Your task to perform on an android device: turn notification dots off Image 0: 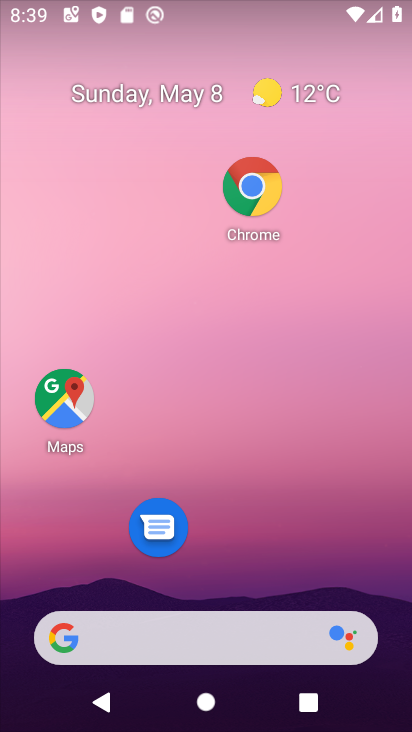
Step 0: drag from (307, 551) to (327, 332)
Your task to perform on an android device: turn notification dots off Image 1: 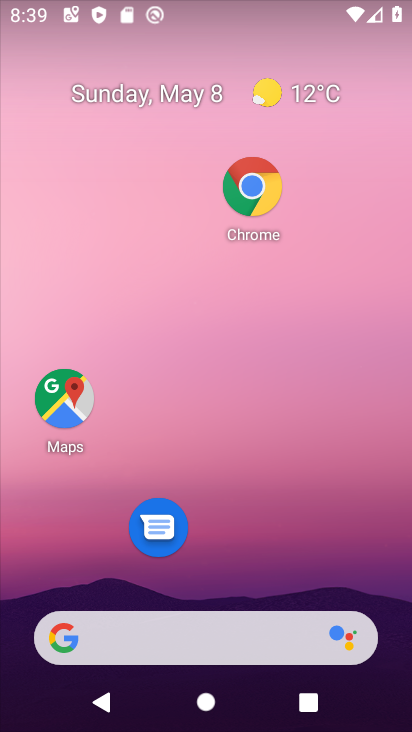
Step 1: drag from (281, 564) to (309, 303)
Your task to perform on an android device: turn notification dots off Image 2: 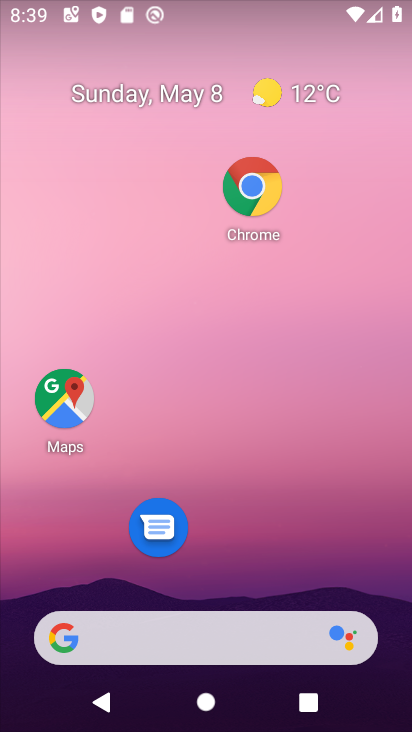
Step 2: drag from (235, 586) to (306, 174)
Your task to perform on an android device: turn notification dots off Image 3: 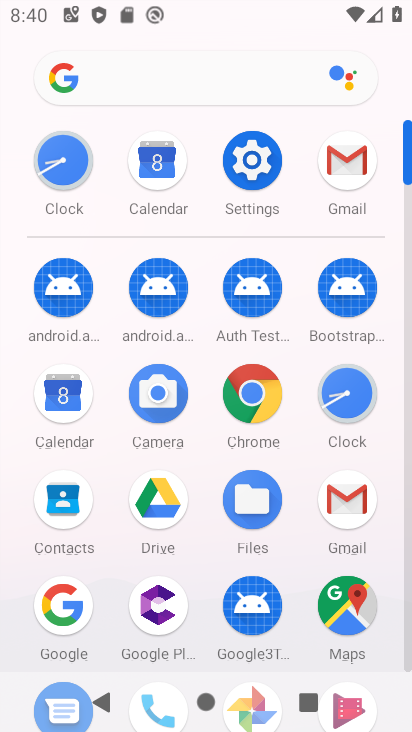
Step 3: click (240, 155)
Your task to perform on an android device: turn notification dots off Image 4: 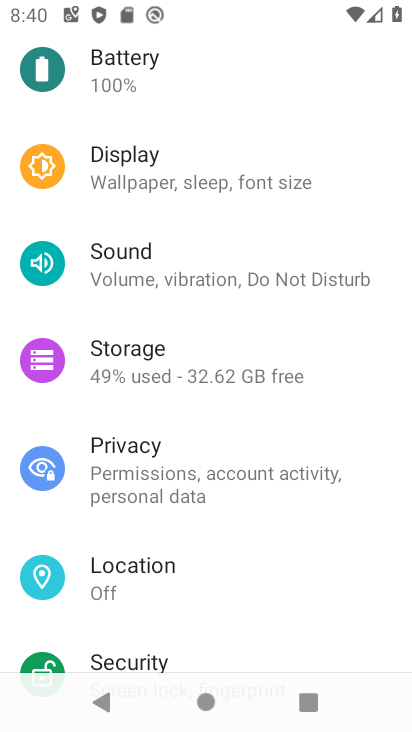
Step 4: drag from (273, 183) to (237, 656)
Your task to perform on an android device: turn notification dots off Image 5: 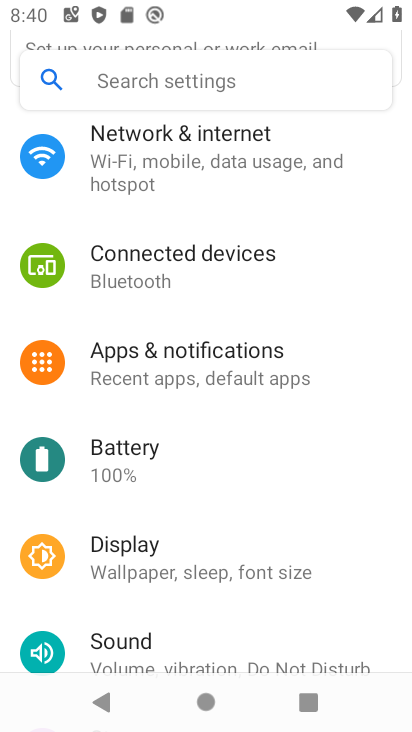
Step 5: click (232, 77)
Your task to perform on an android device: turn notification dots off Image 6: 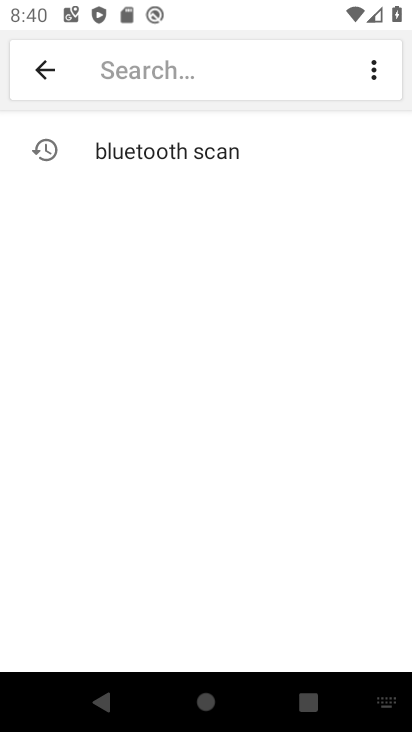
Step 6: type " notification dots"
Your task to perform on an android device: turn notification dots off Image 7: 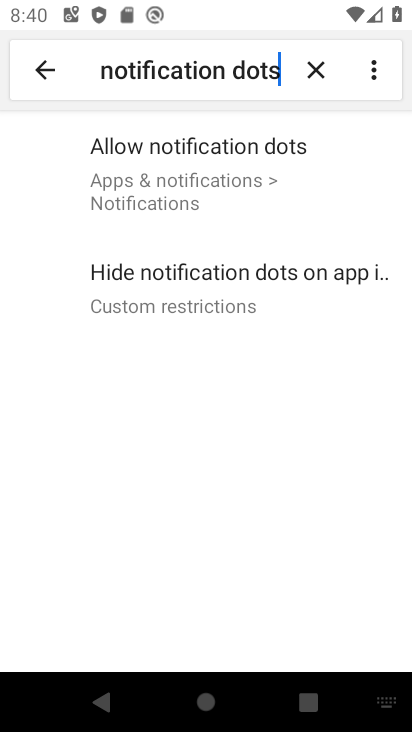
Step 7: click (183, 177)
Your task to perform on an android device: turn notification dots off Image 8: 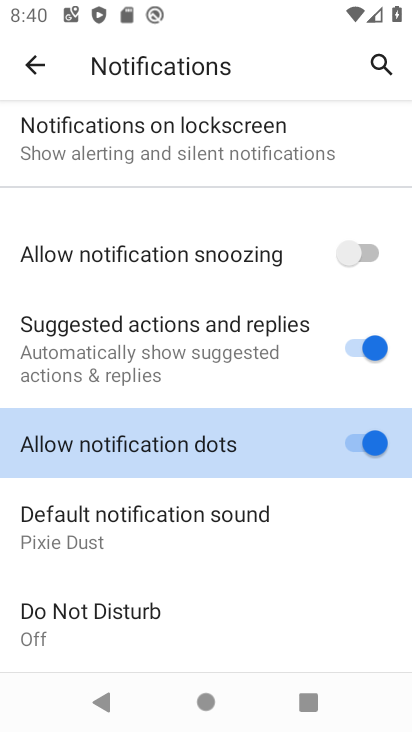
Step 8: click (363, 440)
Your task to perform on an android device: turn notification dots off Image 9: 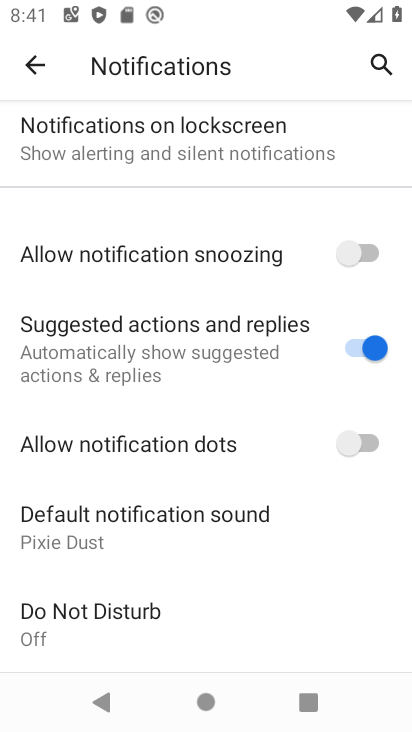
Step 9: task complete